Your task to perform on an android device: find photos in the google photos app Image 0: 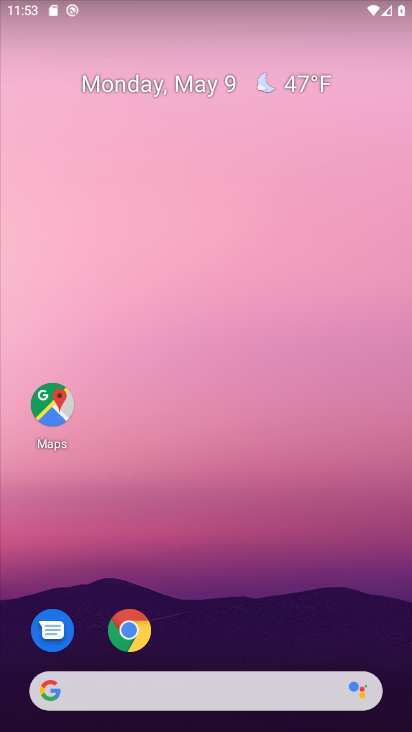
Step 0: drag from (366, 659) to (205, 306)
Your task to perform on an android device: find photos in the google photos app Image 1: 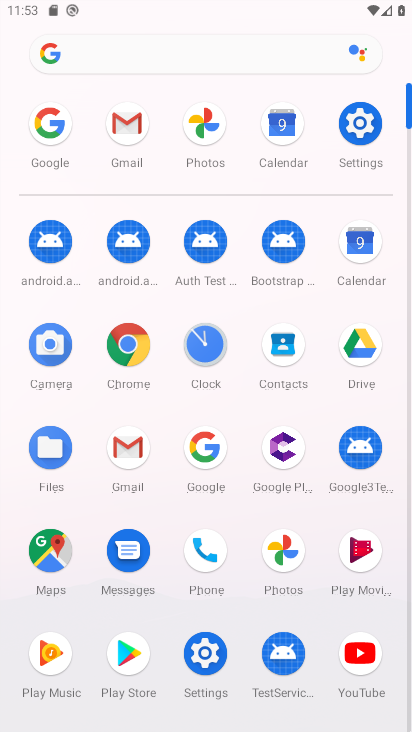
Step 1: click (284, 556)
Your task to perform on an android device: find photos in the google photos app Image 2: 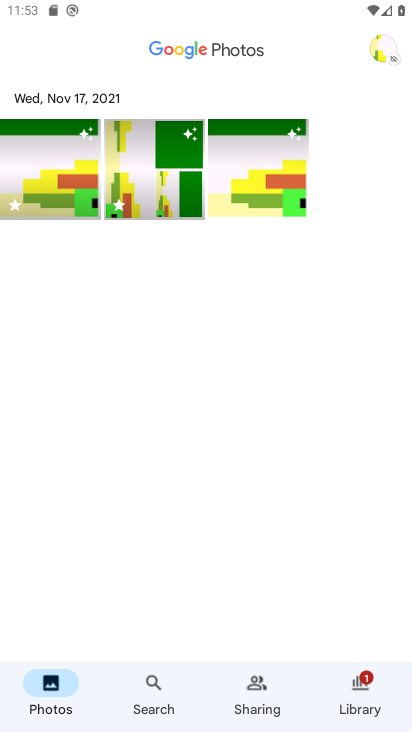
Step 2: task complete